Your task to perform on an android device: toggle priority inbox in the gmail app Image 0: 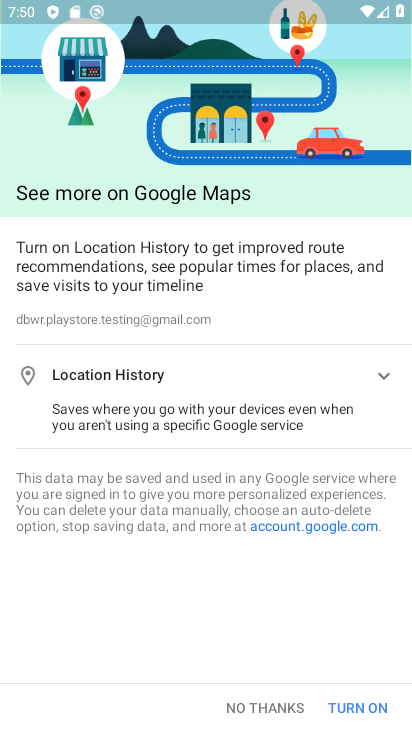
Step 0: press home button
Your task to perform on an android device: toggle priority inbox in the gmail app Image 1: 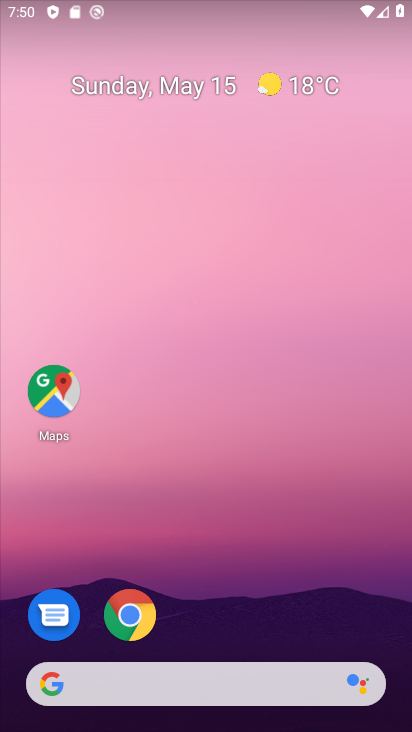
Step 1: drag from (28, 613) to (323, 135)
Your task to perform on an android device: toggle priority inbox in the gmail app Image 2: 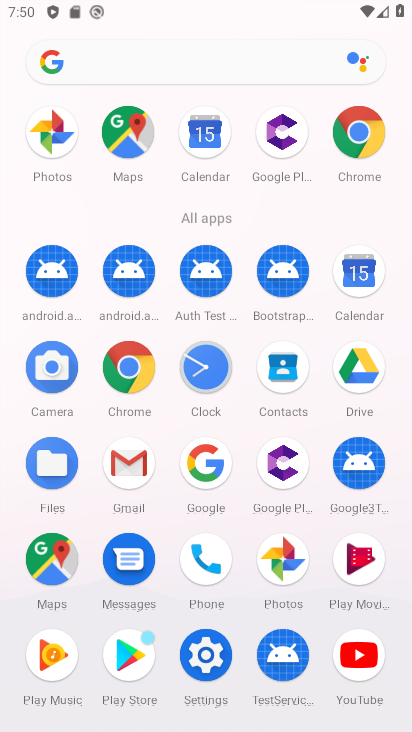
Step 2: click (127, 461)
Your task to perform on an android device: toggle priority inbox in the gmail app Image 3: 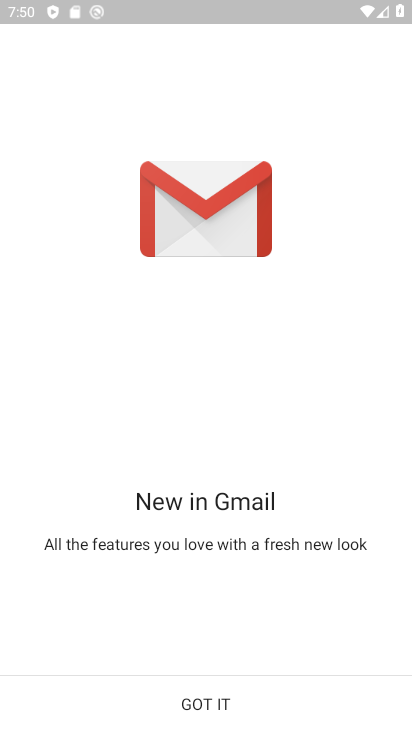
Step 3: click (211, 705)
Your task to perform on an android device: toggle priority inbox in the gmail app Image 4: 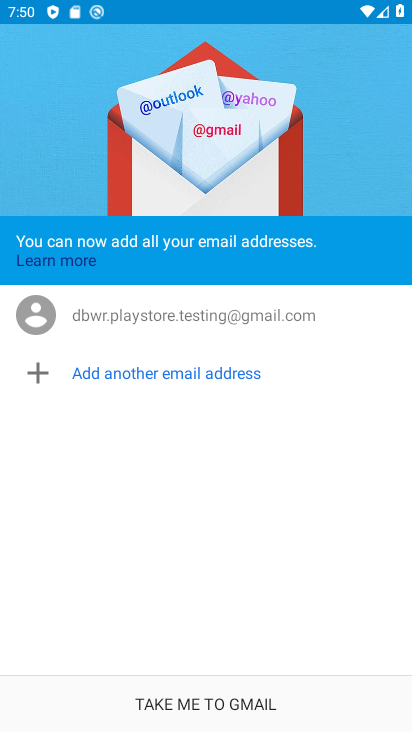
Step 4: click (185, 706)
Your task to perform on an android device: toggle priority inbox in the gmail app Image 5: 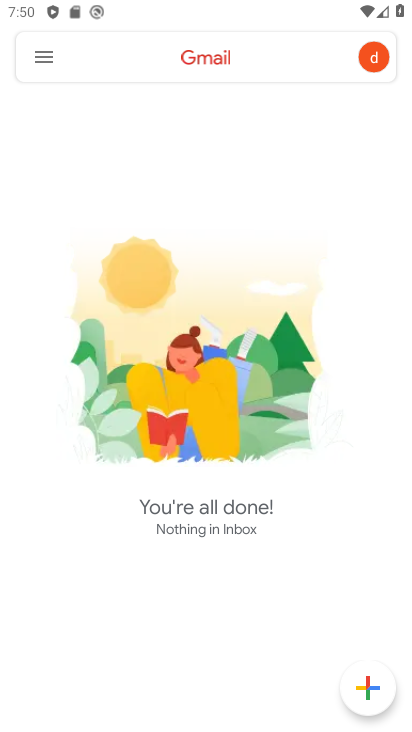
Step 5: click (47, 54)
Your task to perform on an android device: toggle priority inbox in the gmail app Image 6: 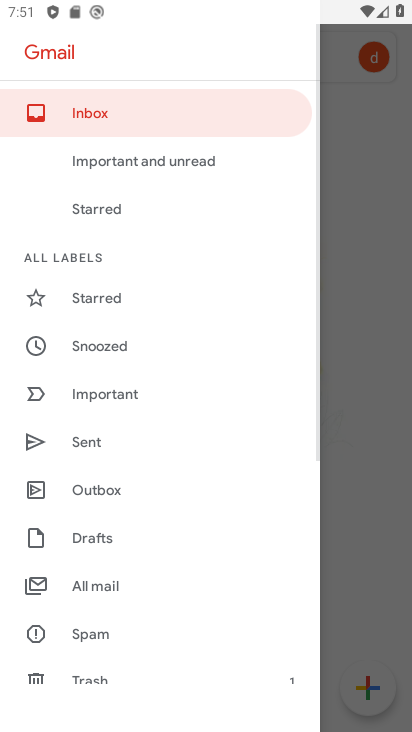
Step 6: drag from (152, 641) to (256, 161)
Your task to perform on an android device: toggle priority inbox in the gmail app Image 7: 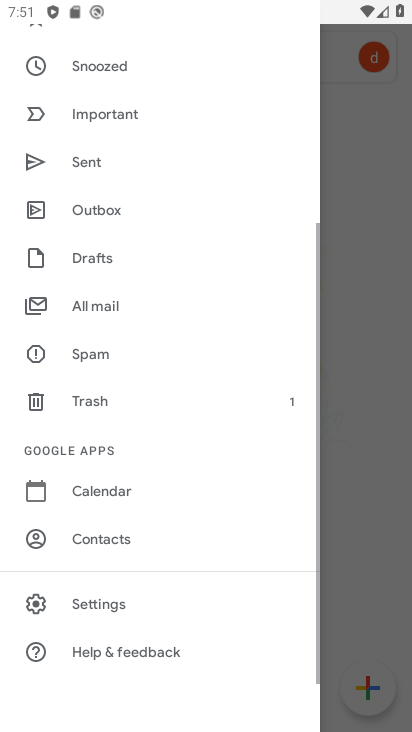
Step 7: click (73, 593)
Your task to perform on an android device: toggle priority inbox in the gmail app Image 8: 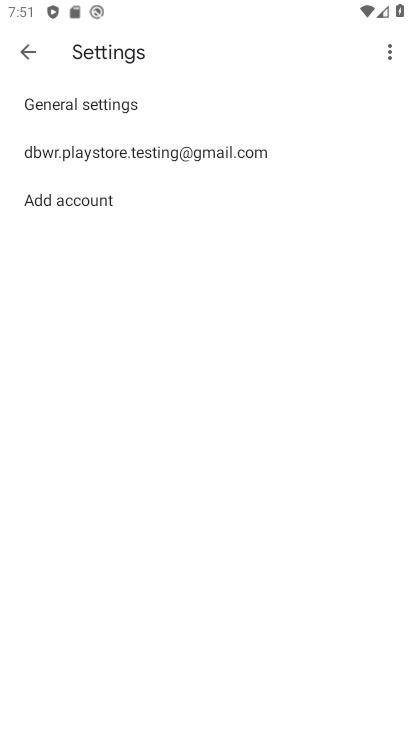
Step 8: click (179, 158)
Your task to perform on an android device: toggle priority inbox in the gmail app Image 9: 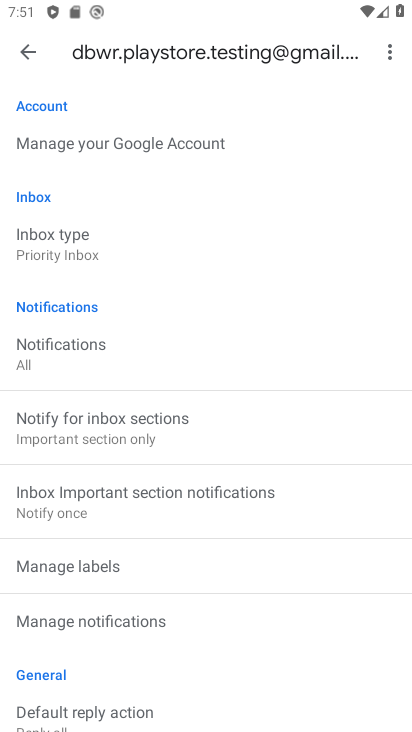
Step 9: click (128, 262)
Your task to perform on an android device: toggle priority inbox in the gmail app Image 10: 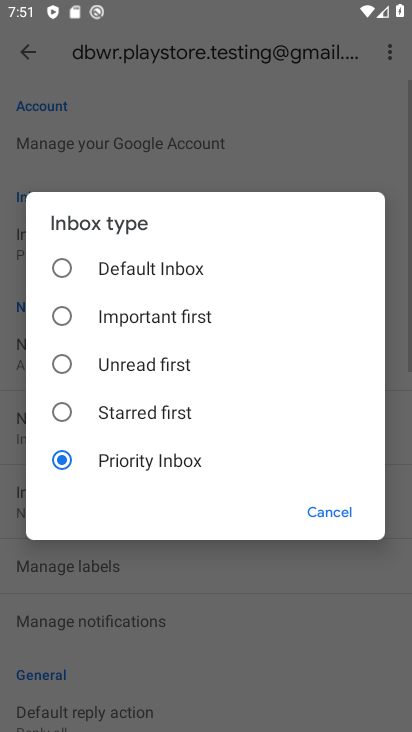
Step 10: click (159, 413)
Your task to perform on an android device: toggle priority inbox in the gmail app Image 11: 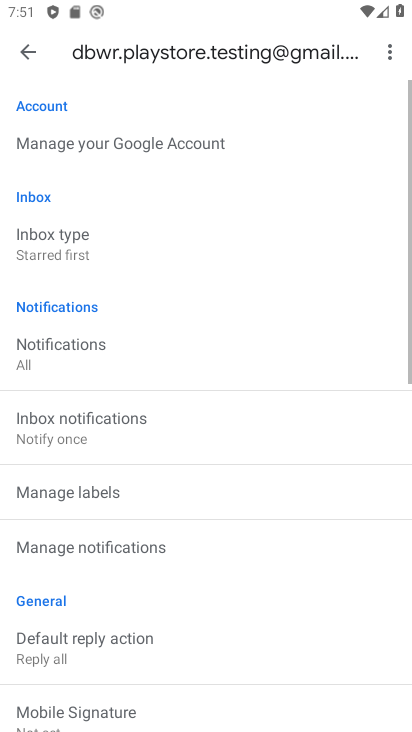
Step 11: task complete